Your task to perform on an android device: Go to calendar. Show me events next week Image 0: 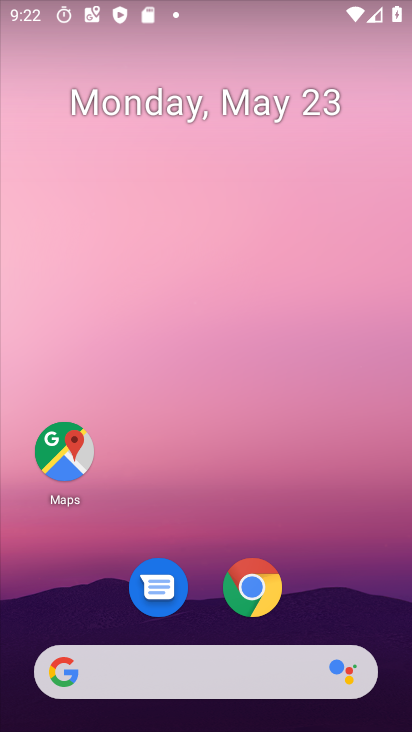
Step 0: drag from (315, 581) to (255, 111)
Your task to perform on an android device: Go to calendar. Show me events next week Image 1: 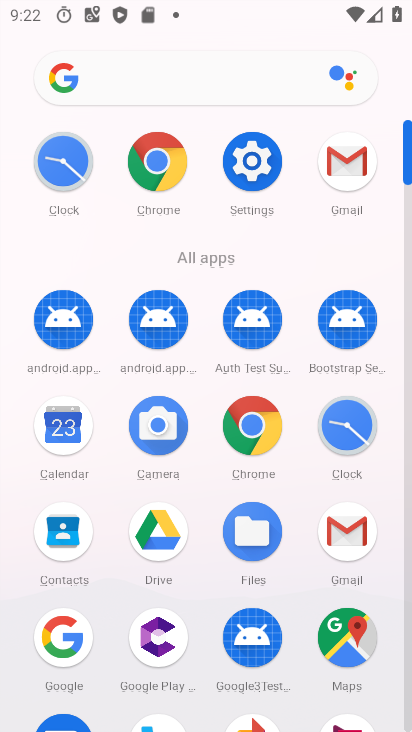
Step 1: click (62, 445)
Your task to perform on an android device: Go to calendar. Show me events next week Image 2: 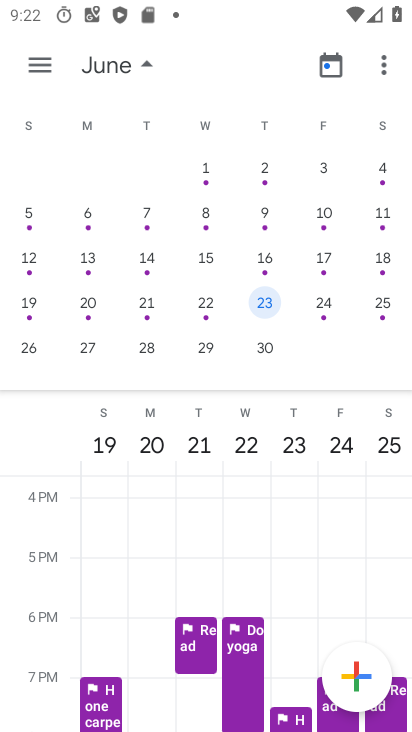
Step 2: click (263, 215)
Your task to perform on an android device: Go to calendar. Show me events next week Image 3: 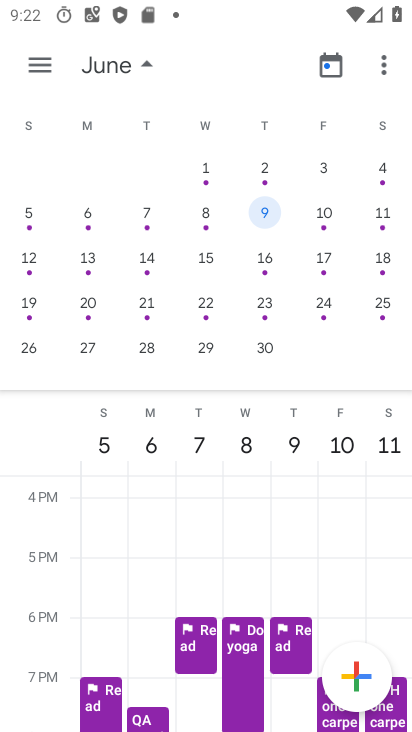
Step 3: task complete